Your task to perform on an android device: turn off location Image 0: 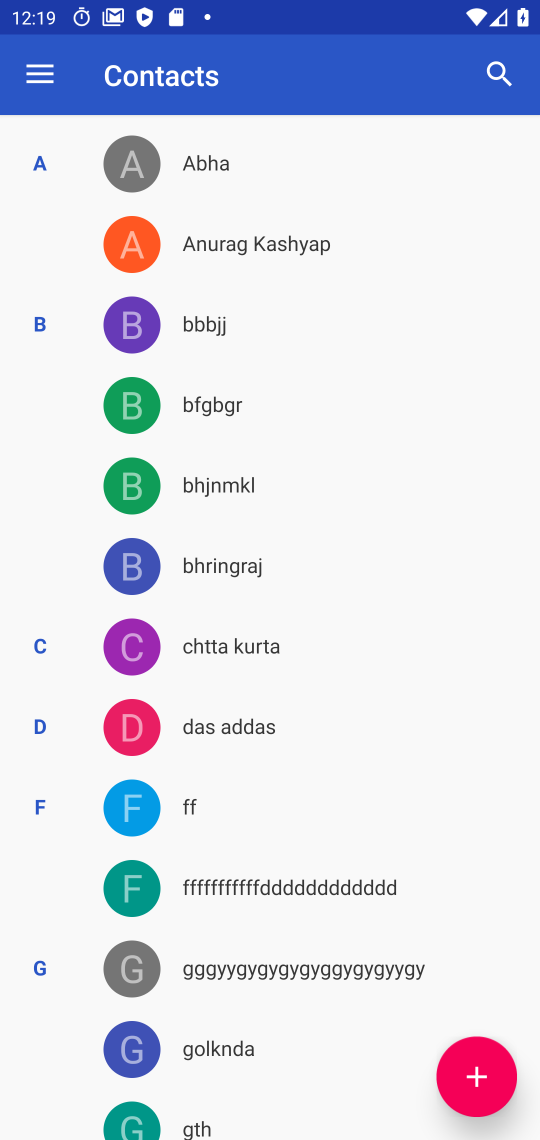
Step 0: press home button
Your task to perform on an android device: turn off location Image 1: 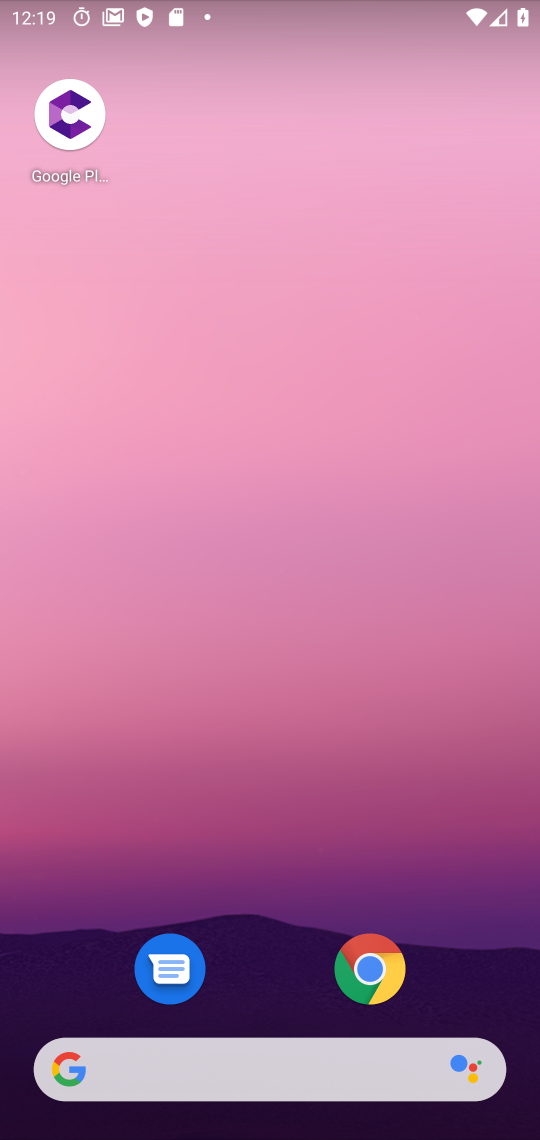
Step 1: drag from (323, 1014) to (259, 269)
Your task to perform on an android device: turn off location Image 2: 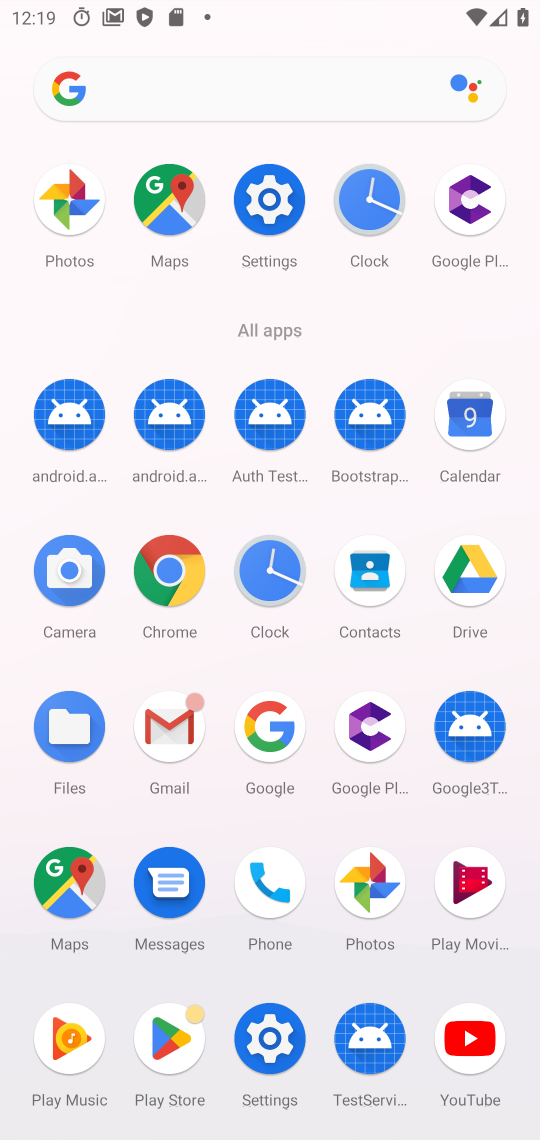
Step 2: click (270, 1031)
Your task to perform on an android device: turn off location Image 3: 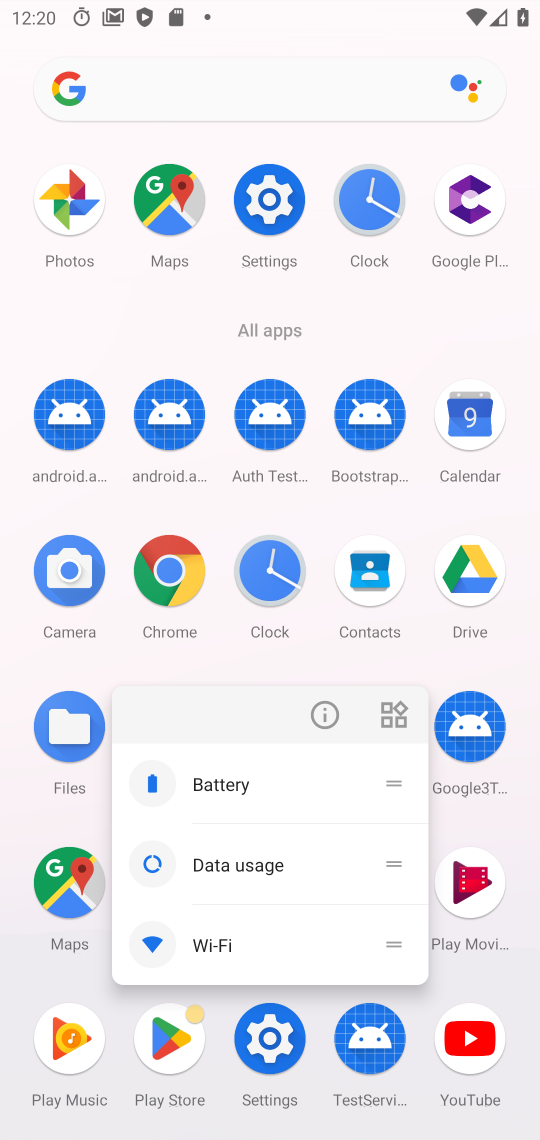
Step 3: click (260, 1042)
Your task to perform on an android device: turn off location Image 4: 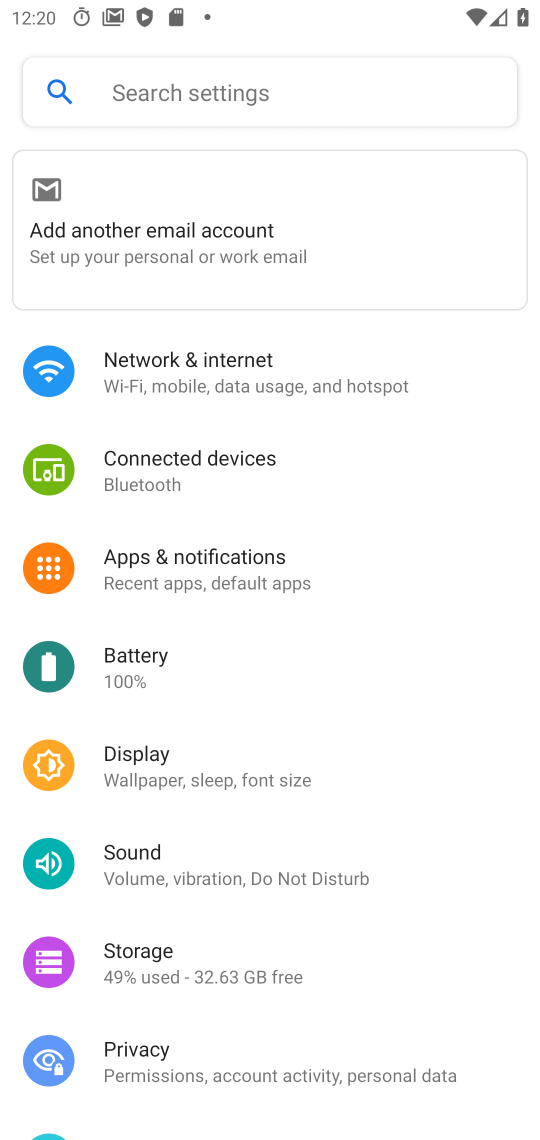
Step 4: drag from (207, 936) to (191, 269)
Your task to perform on an android device: turn off location Image 5: 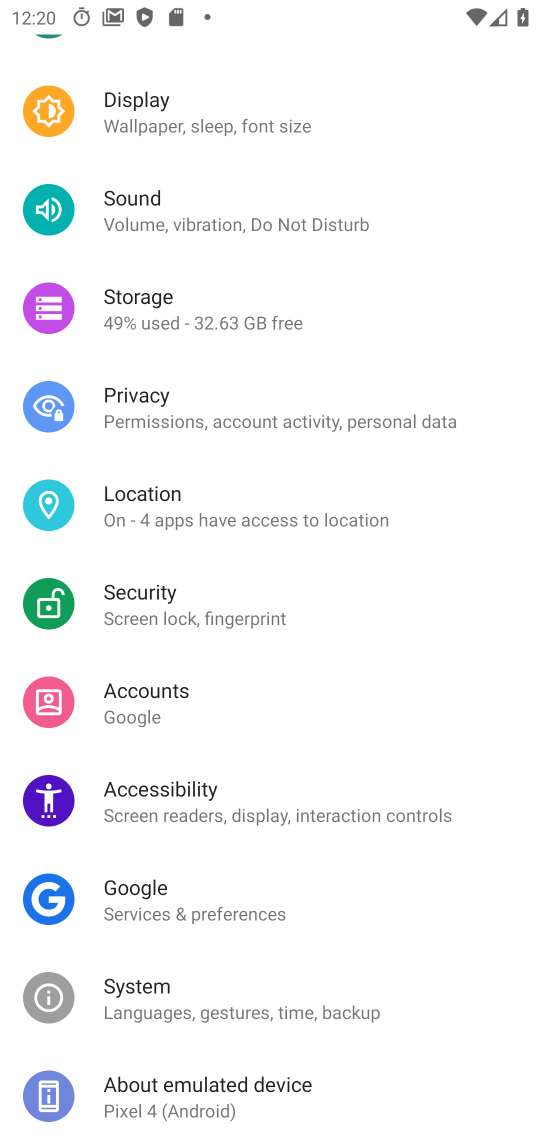
Step 5: click (152, 511)
Your task to perform on an android device: turn off location Image 6: 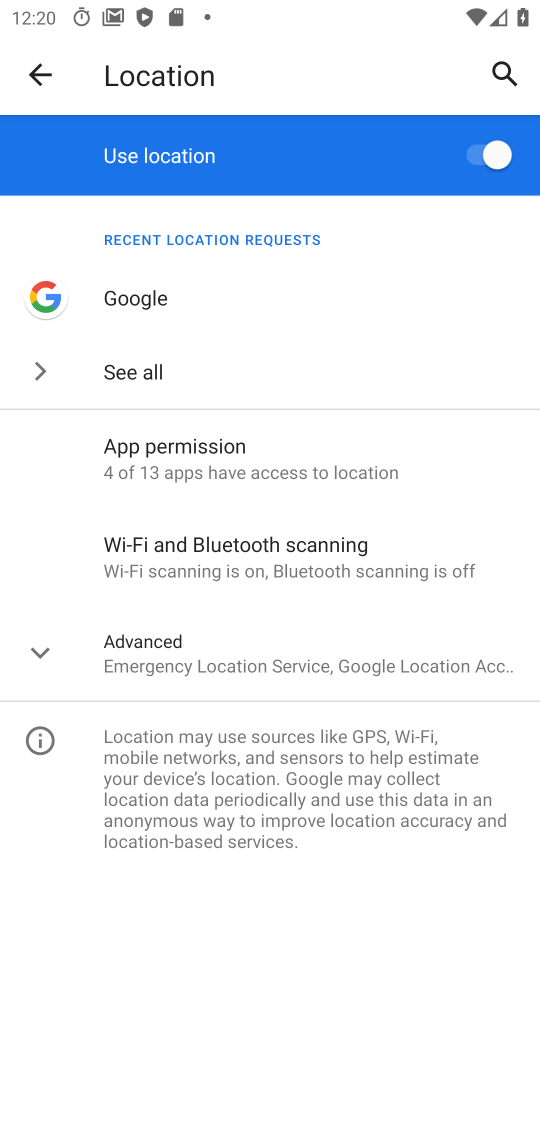
Step 6: click (486, 144)
Your task to perform on an android device: turn off location Image 7: 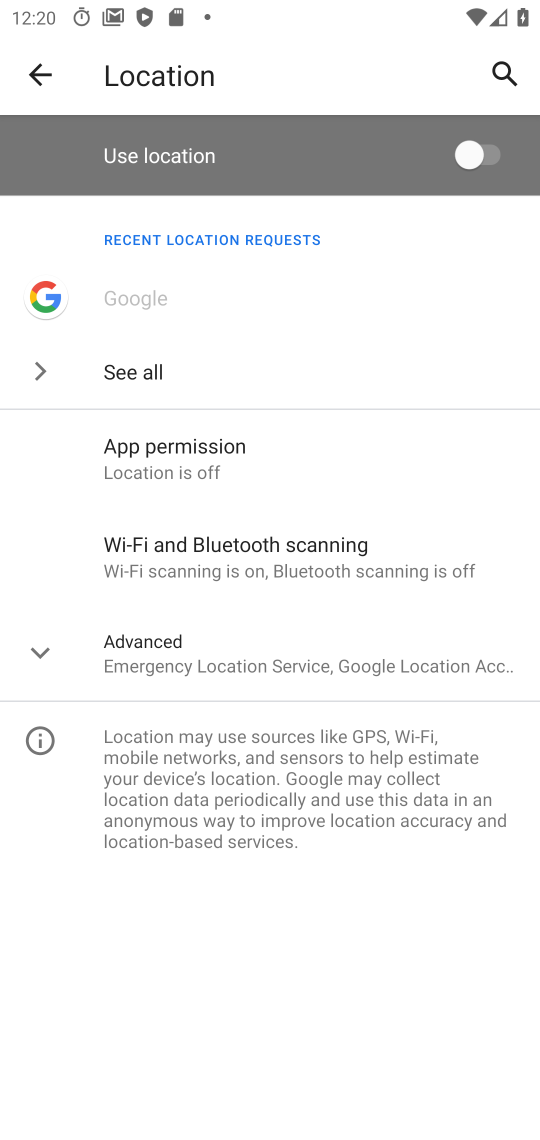
Step 7: task complete